Your task to perform on an android device: turn notification dots on Image 0: 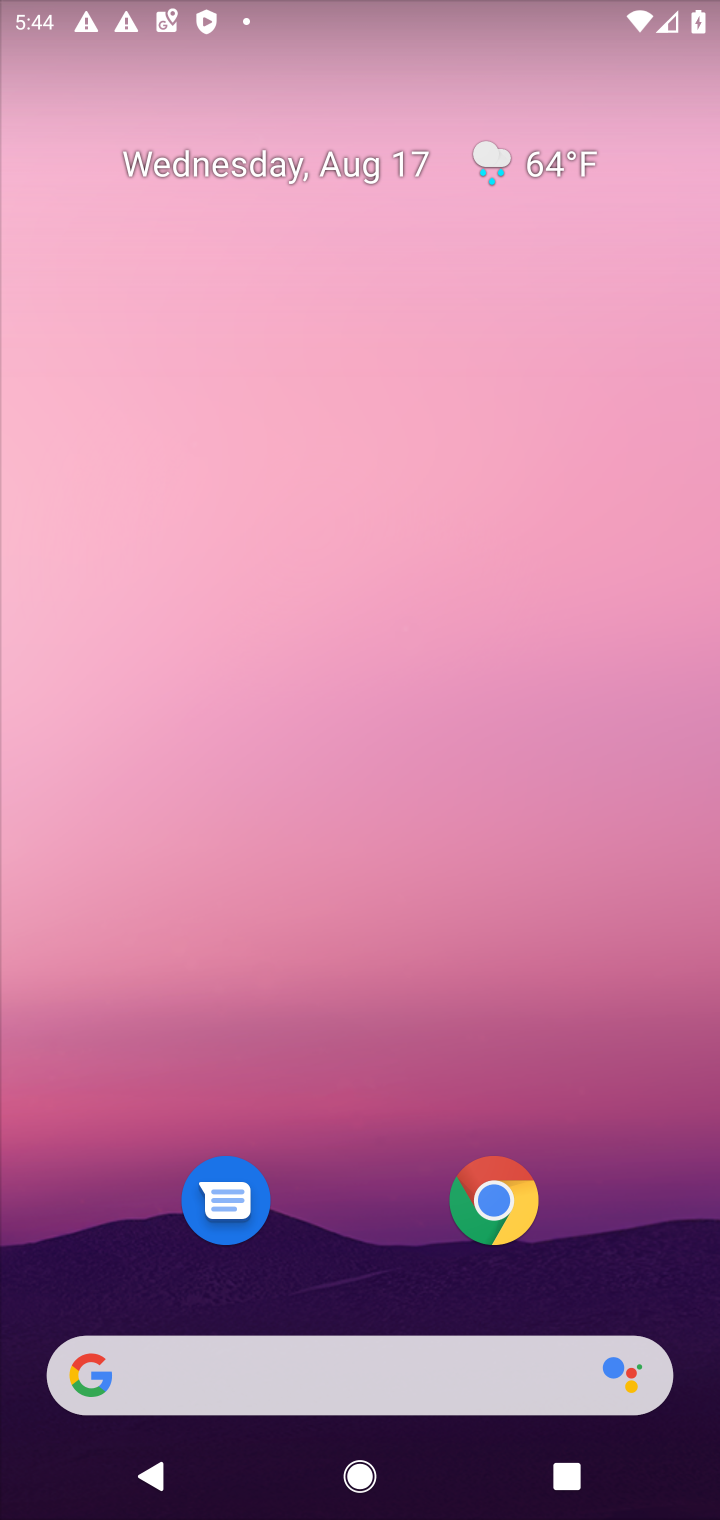
Step 0: drag from (357, 1298) to (366, 148)
Your task to perform on an android device: turn notification dots on Image 1: 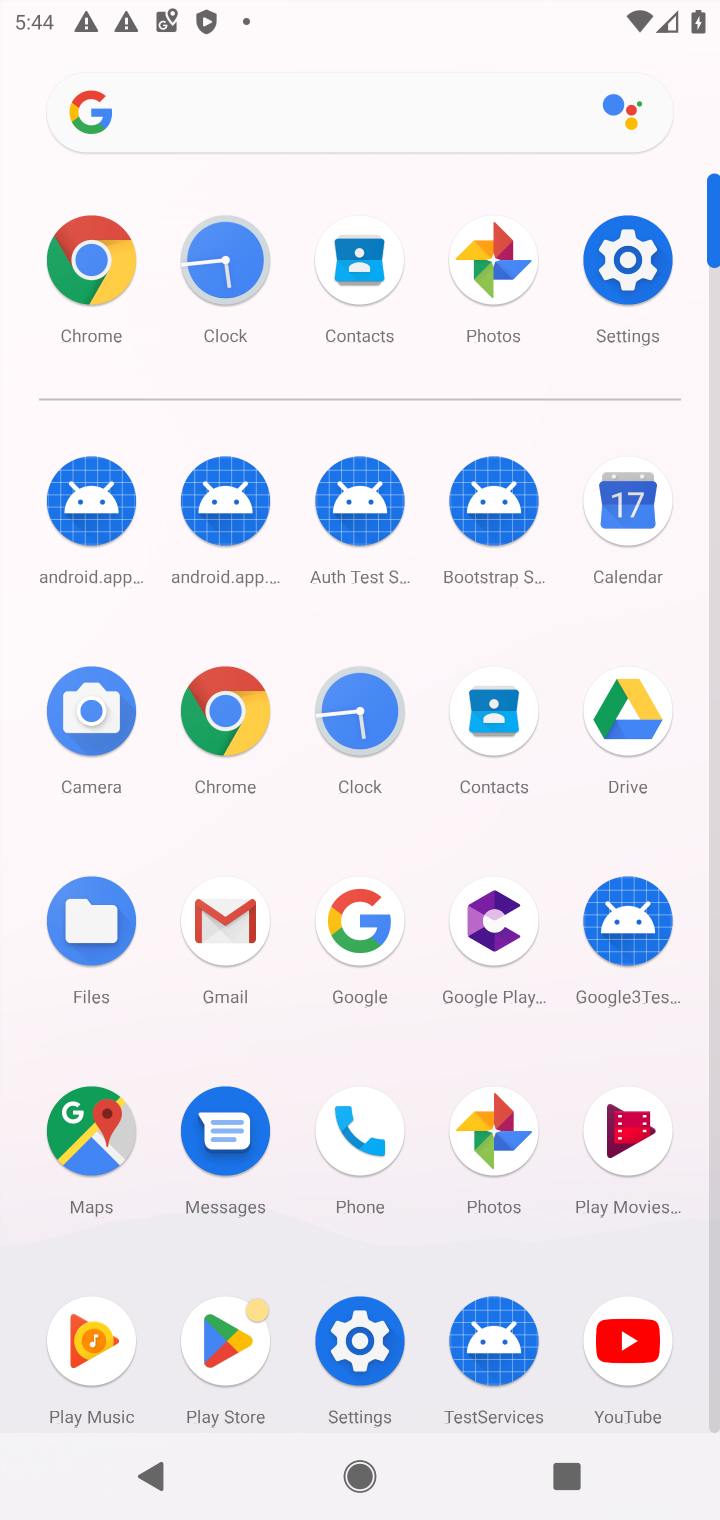
Step 1: click (626, 257)
Your task to perform on an android device: turn notification dots on Image 2: 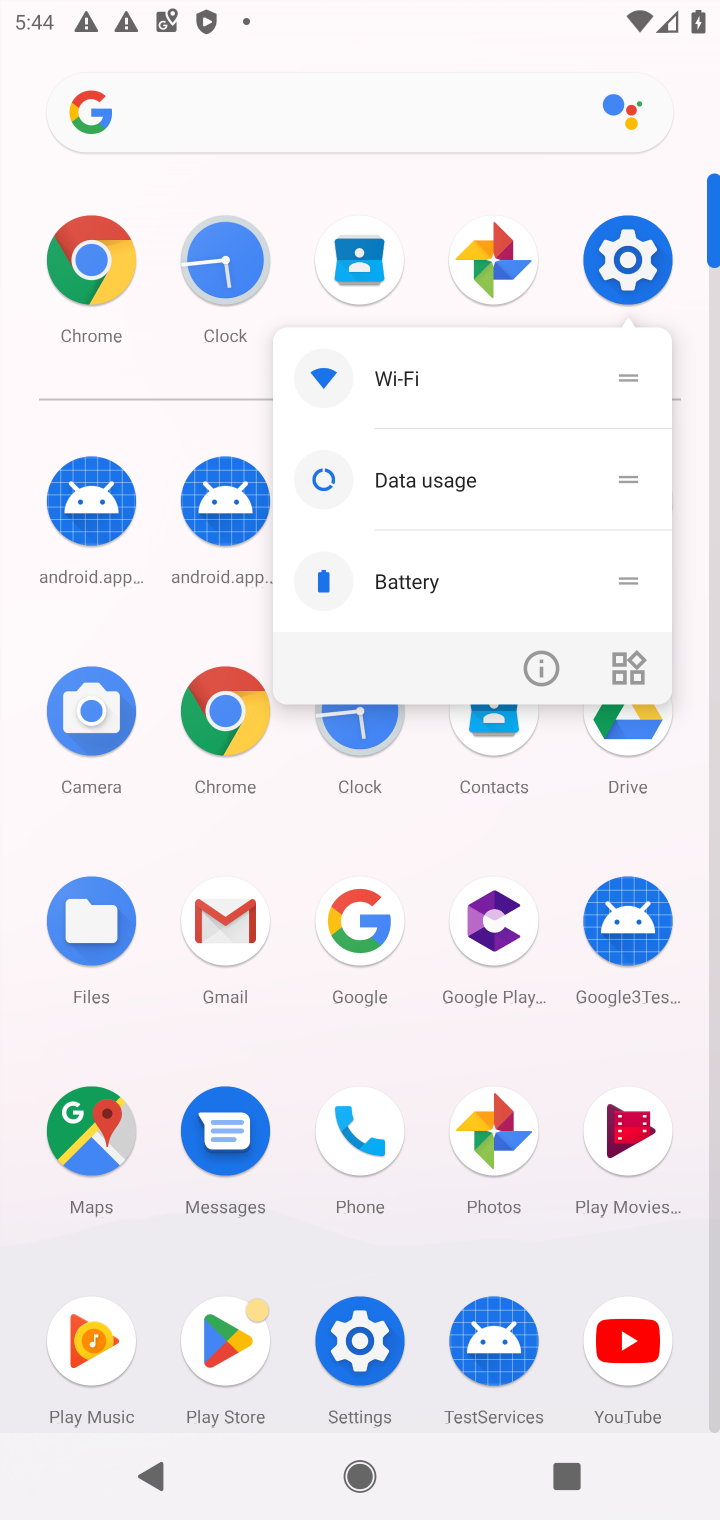
Step 2: click (624, 260)
Your task to perform on an android device: turn notification dots on Image 3: 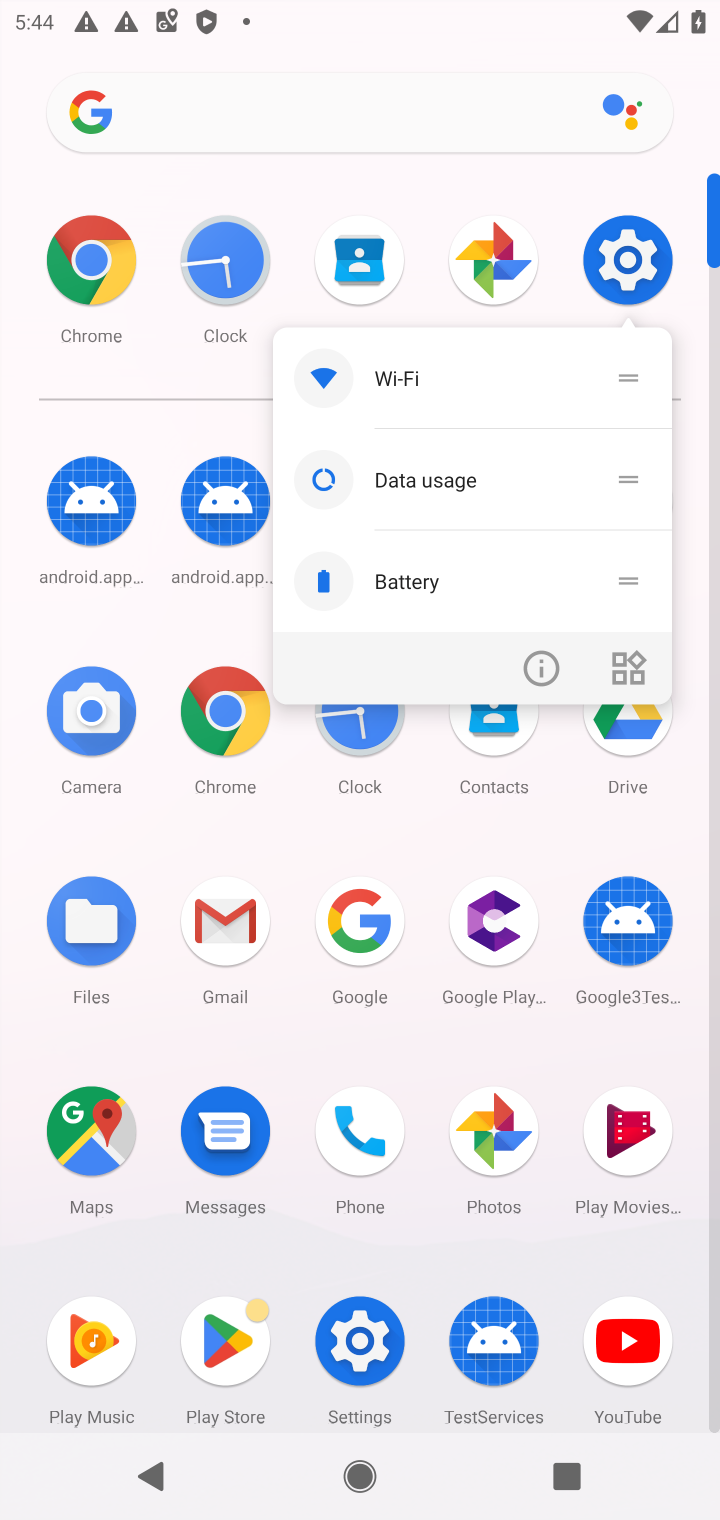
Step 3: click (621, 259)
Your task to perform on an android device: turn notification dots on Image 4: 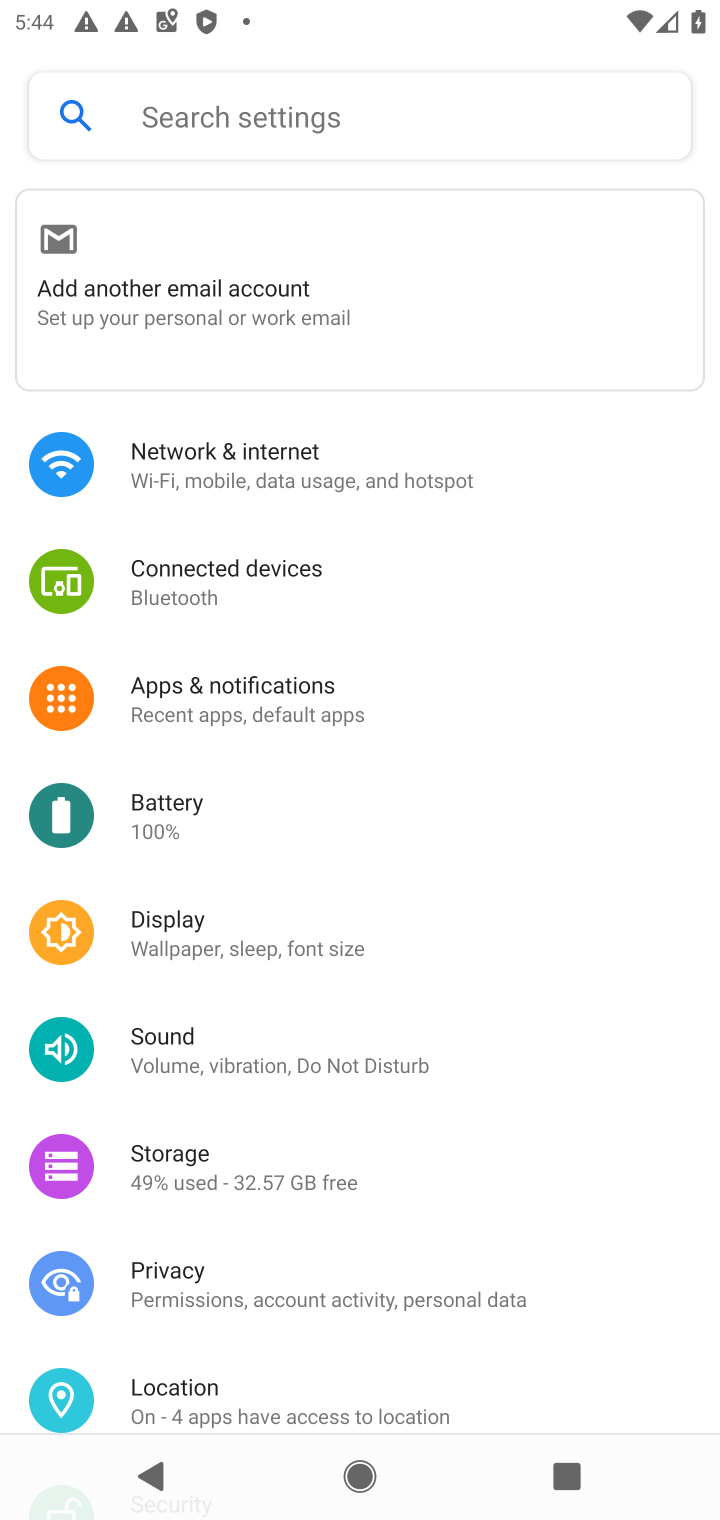
Step 4: click (248, 686)
Your task to perform on an android device: turn notification dots on Image 5: 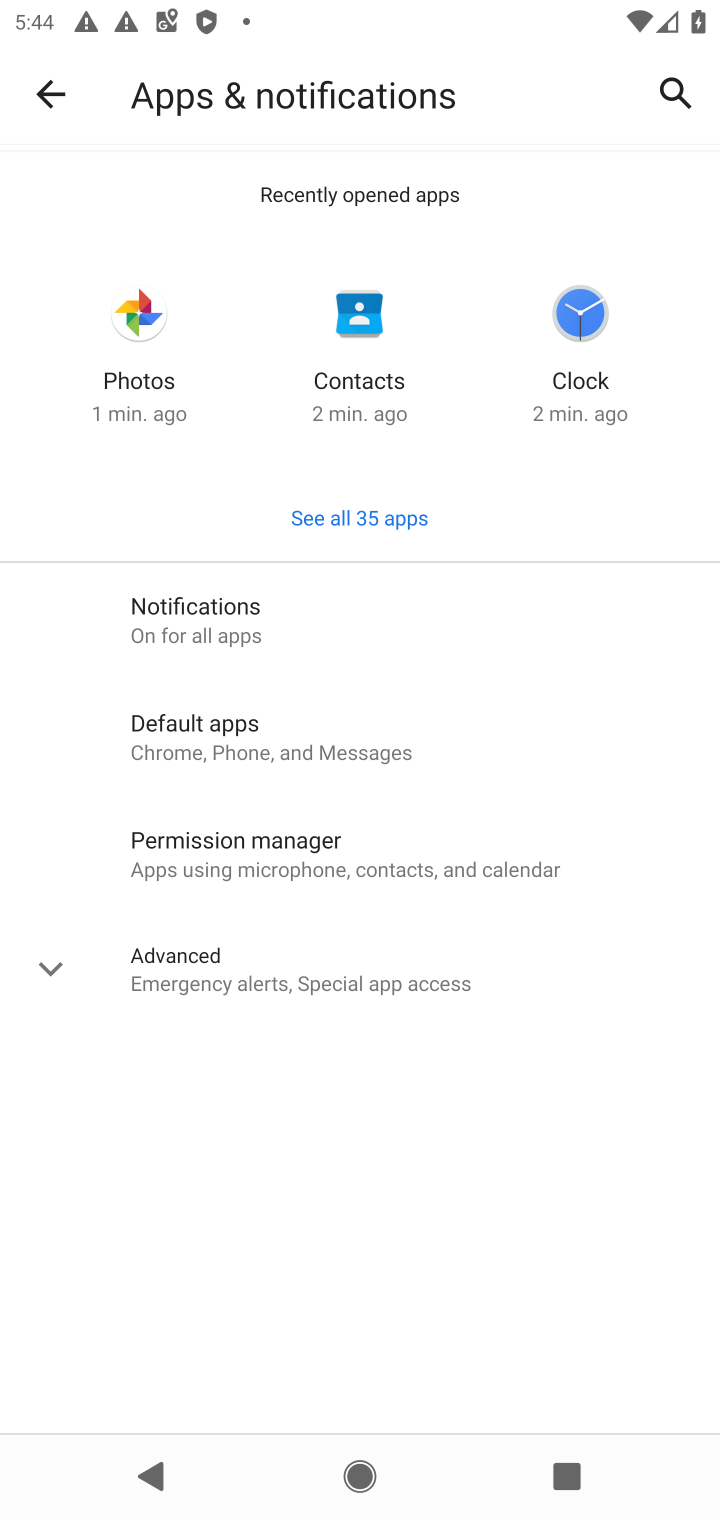
Step 5: click (179, 609)
Your task to perform on an android device: turn notification dots on Image 6: 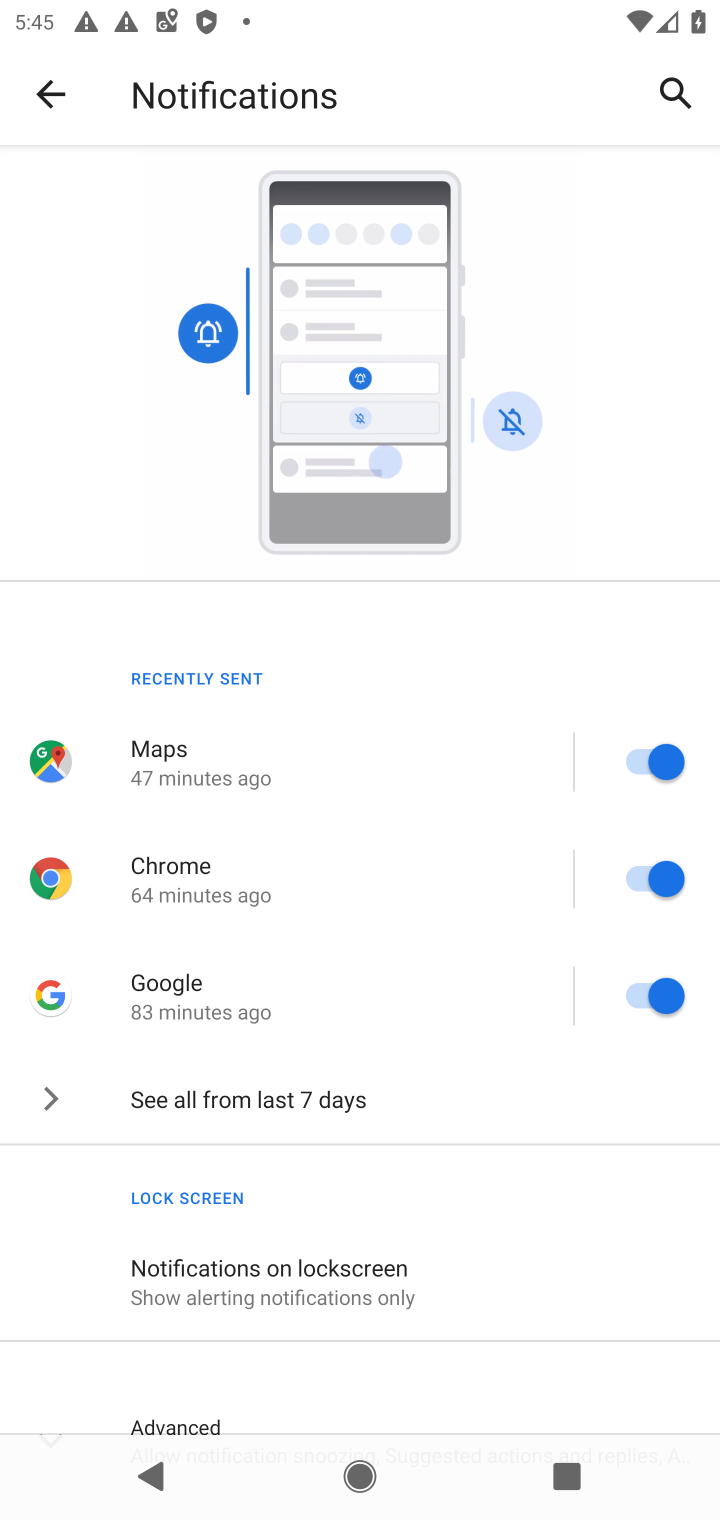
Step 6: drag from (260, 1269) to (224, 460)
Your task to perform on an android device: turn notification dots on Image 7: 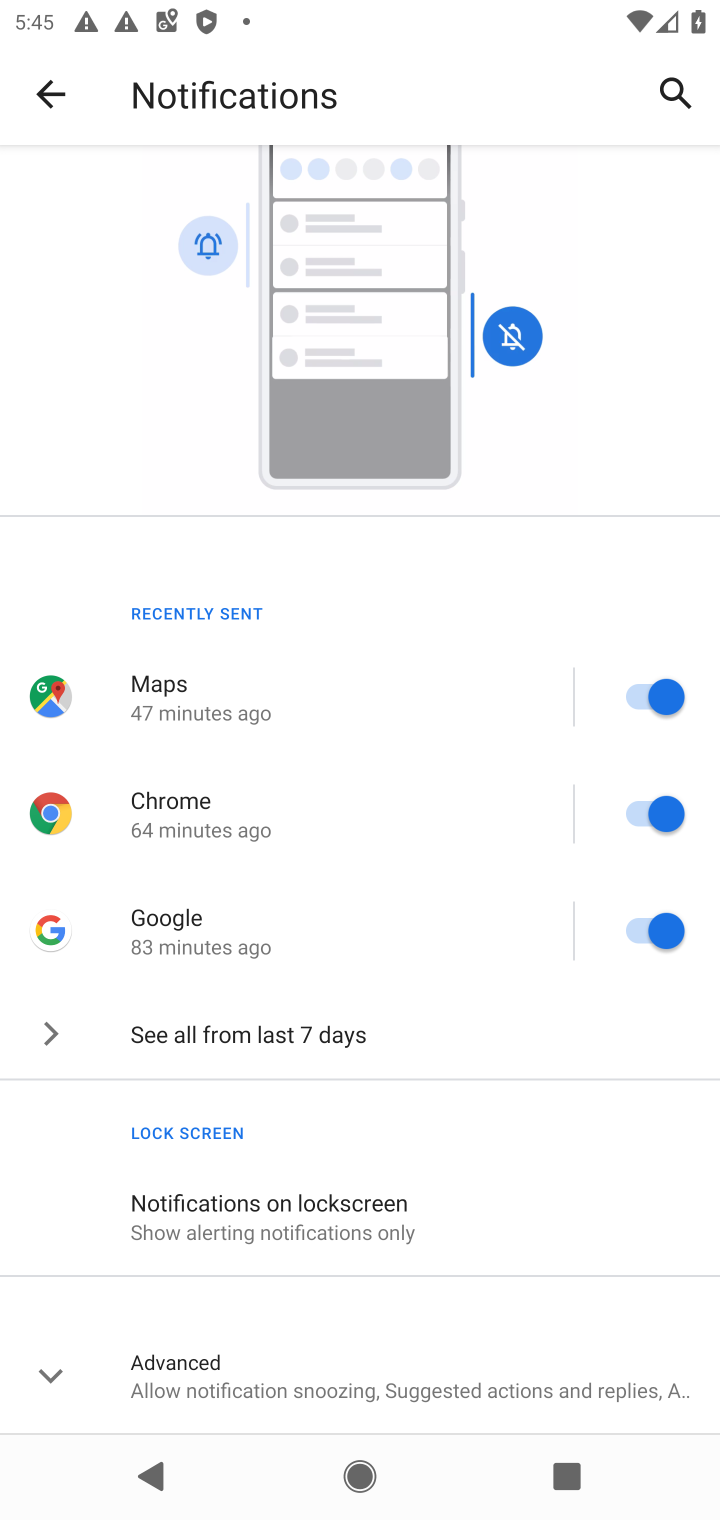
Step 7: click (196, 1372)
Your task to perform on an android device: turn notification dots on Image 8: 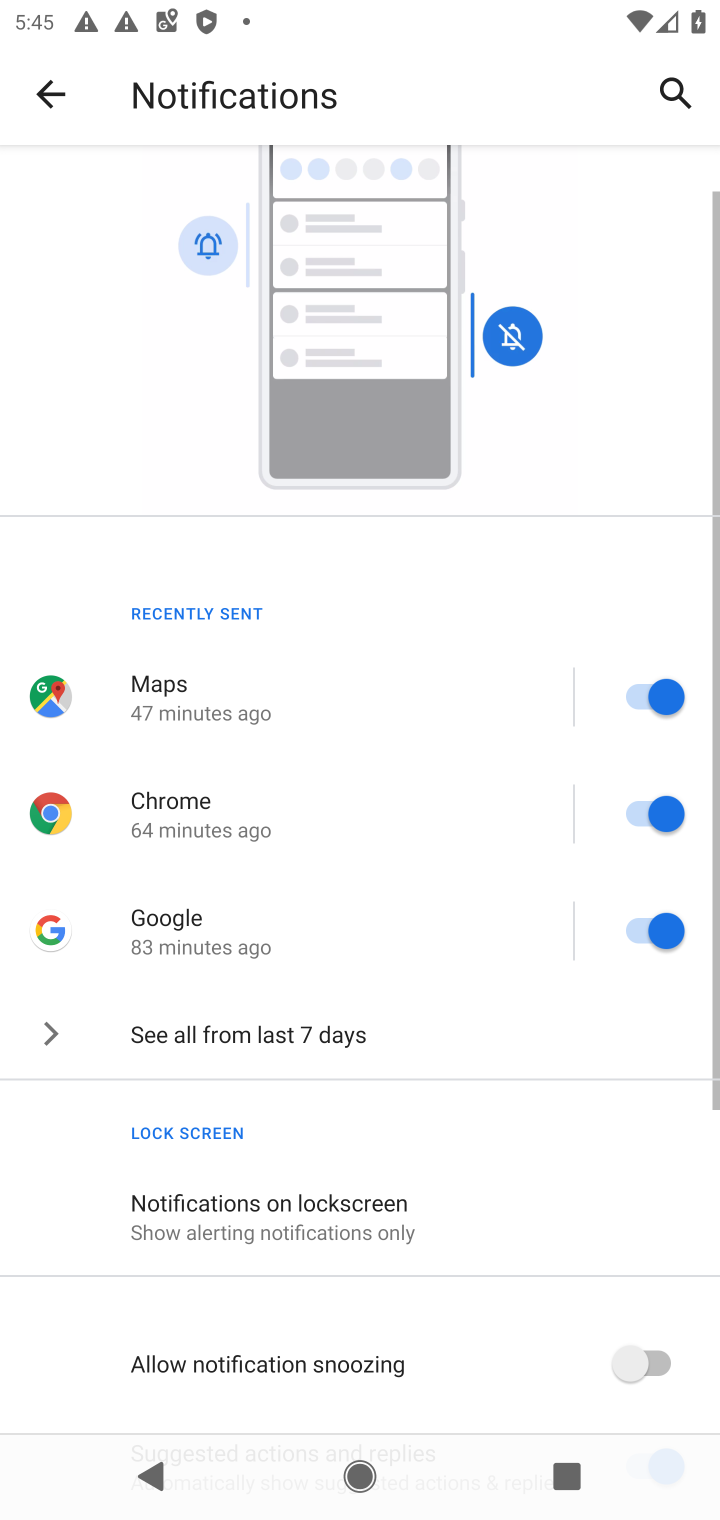
Step 8: task complete